Your task to perform on an android device: Add "beats solo 3" to the cart on costco Image 0: 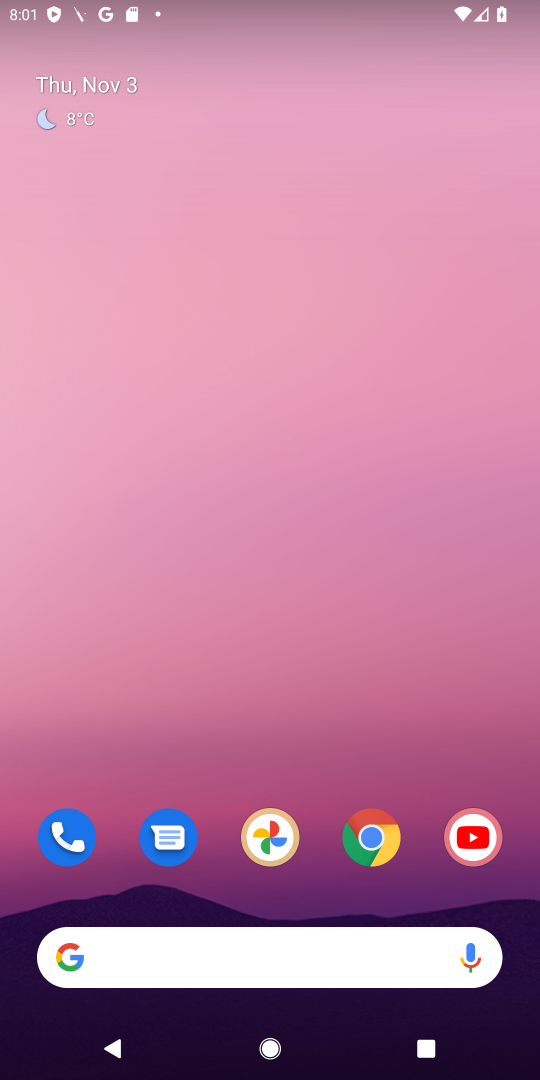
Step 0: click (372, 845)
Your task to perform on an android device: Add "beats solo 3" to the cart on costco Image 1: 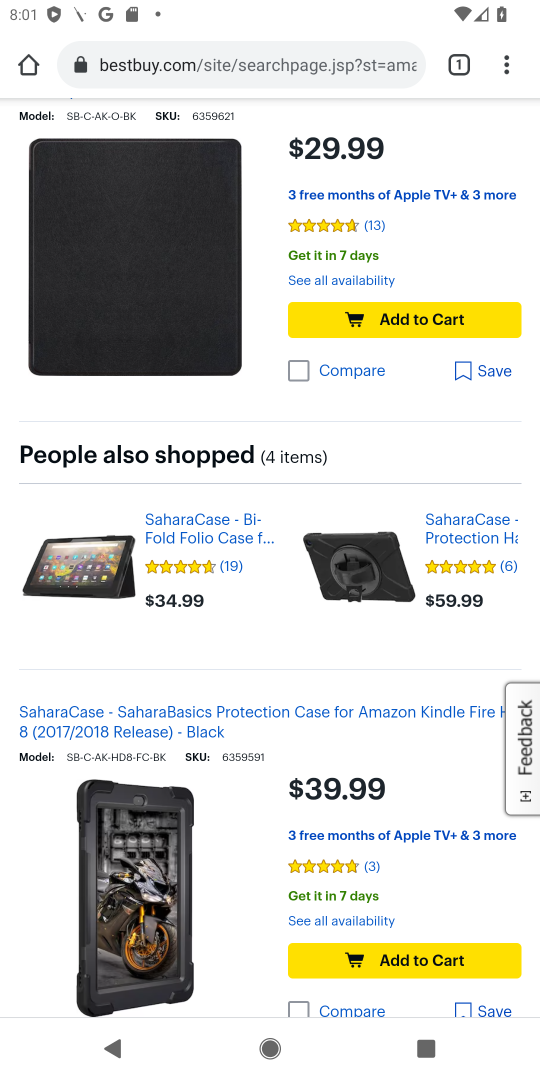
Step 1: click (310, 62)
Your task to perform on an android device: Add "beats solo 3" to the cart on costco Image 2: 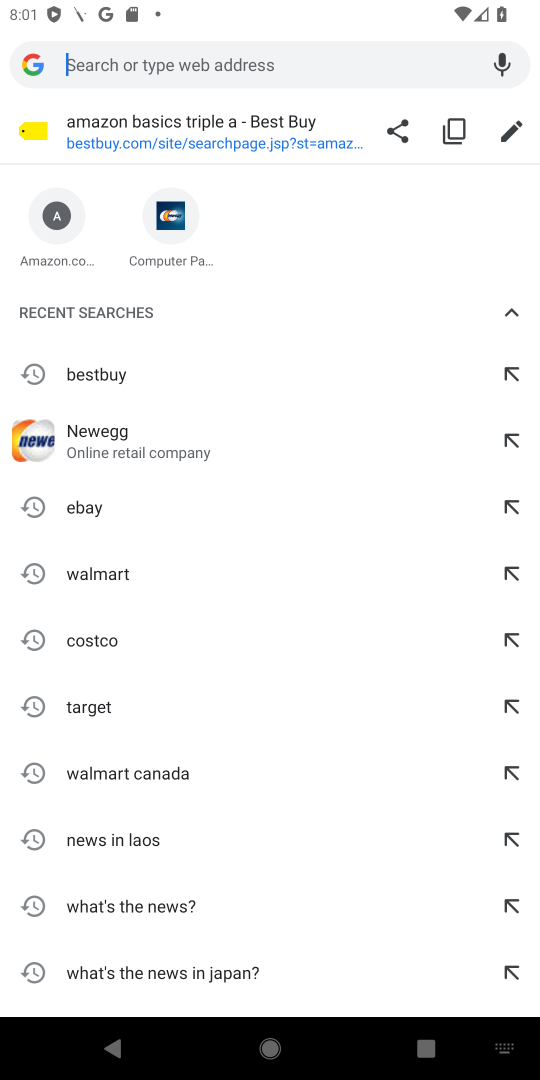
Step 2: click (104, 635)
Your task to perform on an android device: Add "beats solo 3" to the cart on costco Image 3: 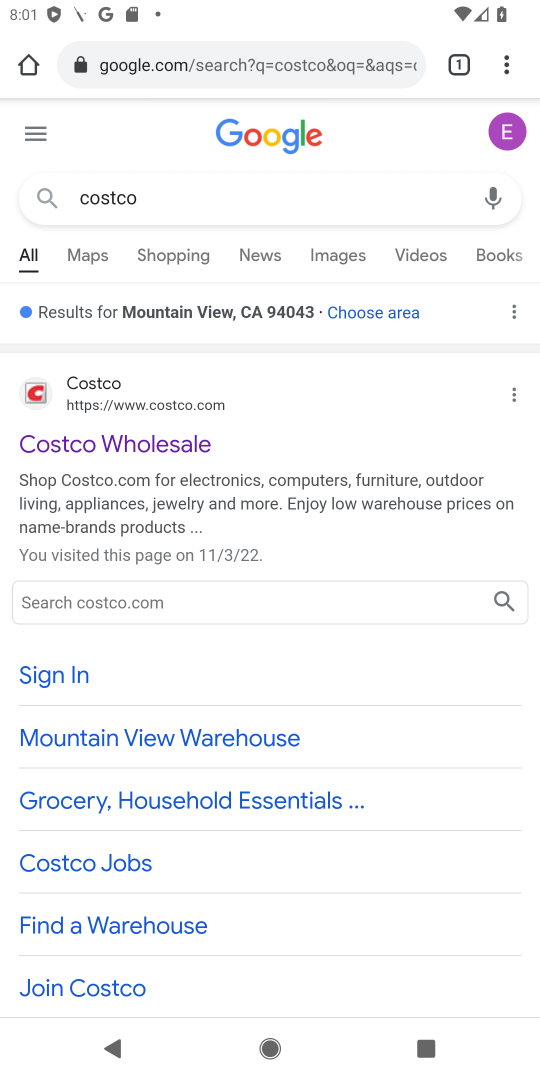
Step 3: click (160, 440)
Your task to perform on an android device: Add "beats solo 3" to the cart on costco Image 4: 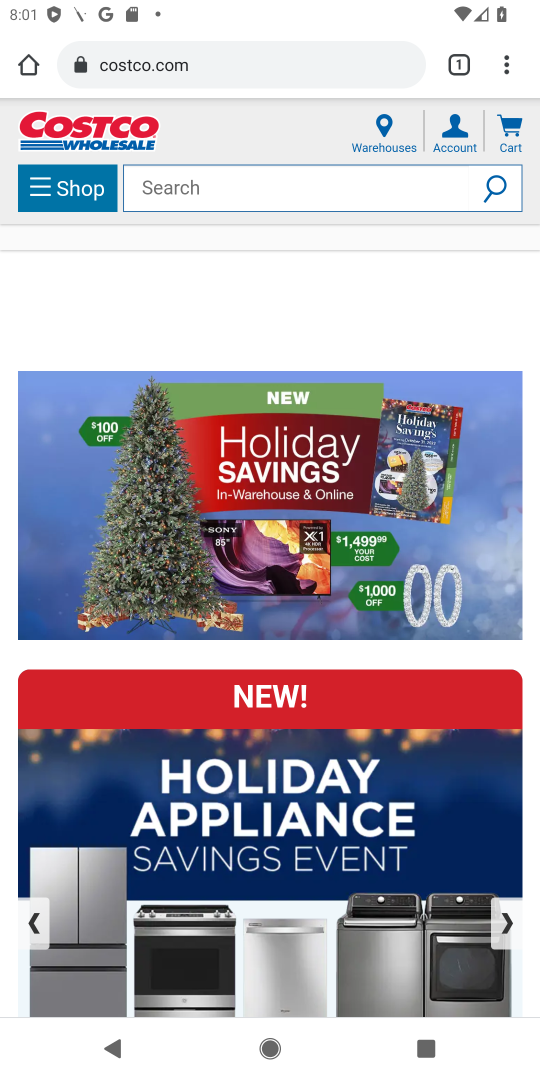
Step 4: click (244, 190)
Your task to perform on an android device: Add "beats solo 3" to the cart on costco Image 5: 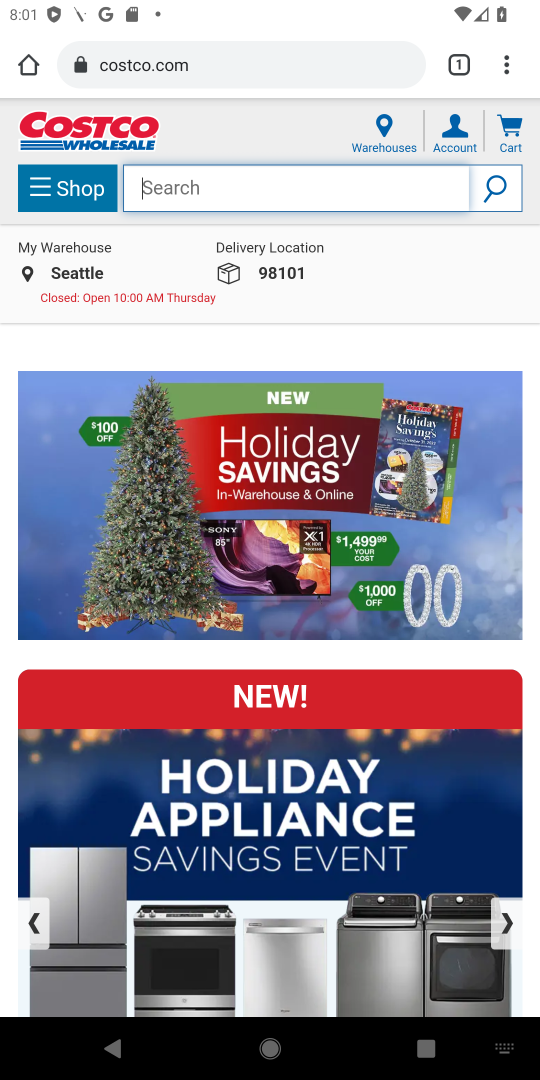
Step 5: type "beats solo 3"
Your task to perform on an android device: Add "beats solo 3" to the cart on costco Image 6: 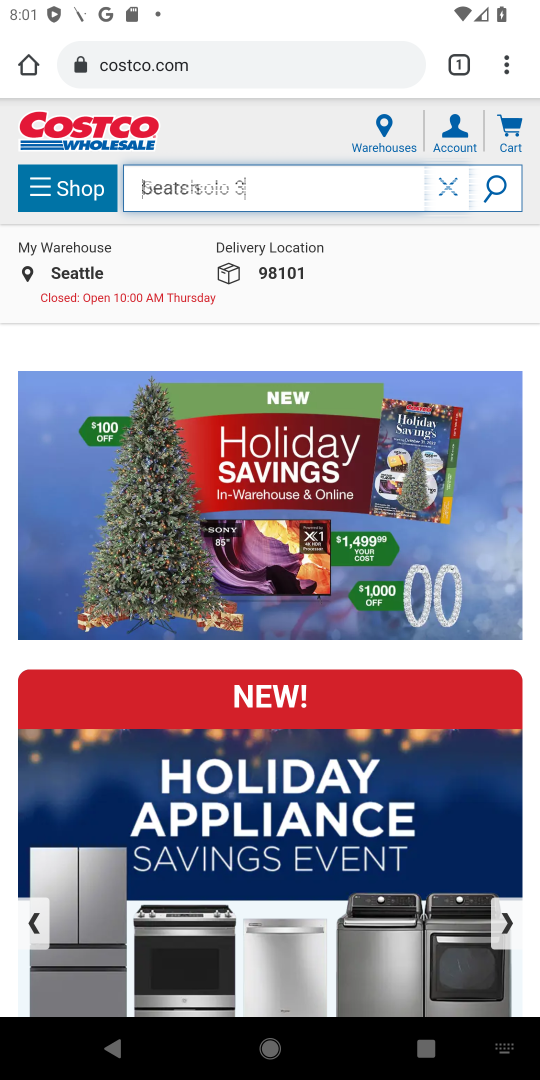
Step 6: press enter
Your task to perform on an android device: Add "beats solo 3" to the cart on costco Image 7: 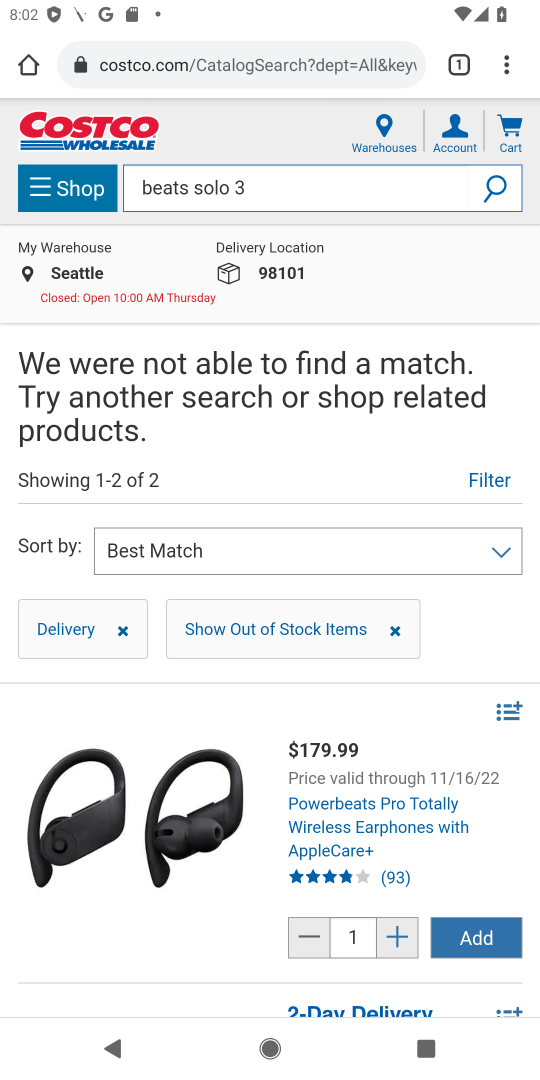
Step 7: task complete